Your task to perform on an android device: empty trash in the gmail app Image 0: 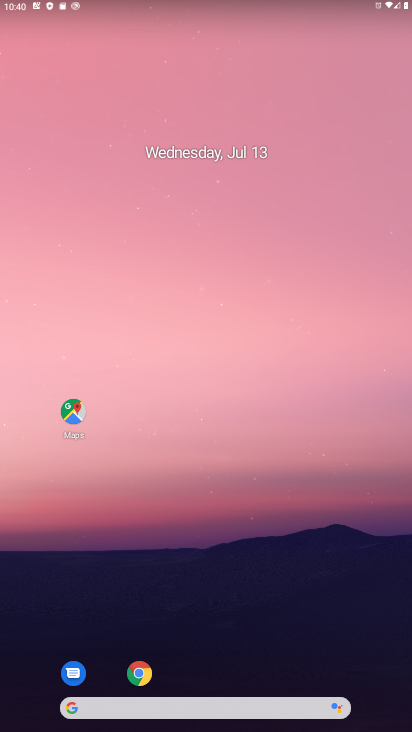
Step 0: drag from (160, 654) to (153, 124)
Your task to perform on an android device: empty trash in the gmail app Image 1: 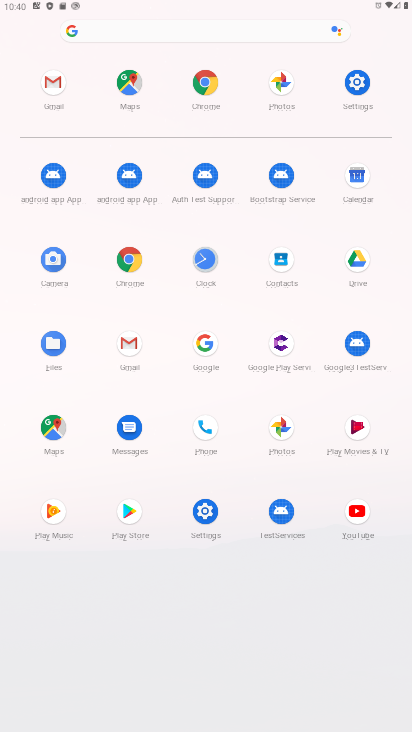
Step 1: click (56, 86)
Your task to perform on an android device: empty trash in the gmail app Image 2: 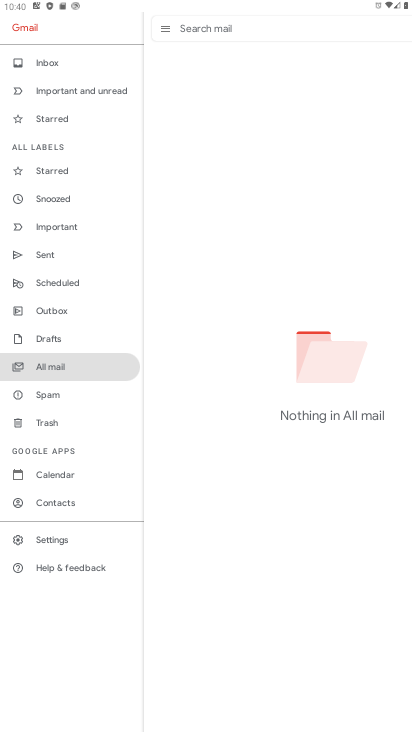
Step 2: click (64, 428)
Your task to perform on an android device: empty trash in the gmail app Image 3: 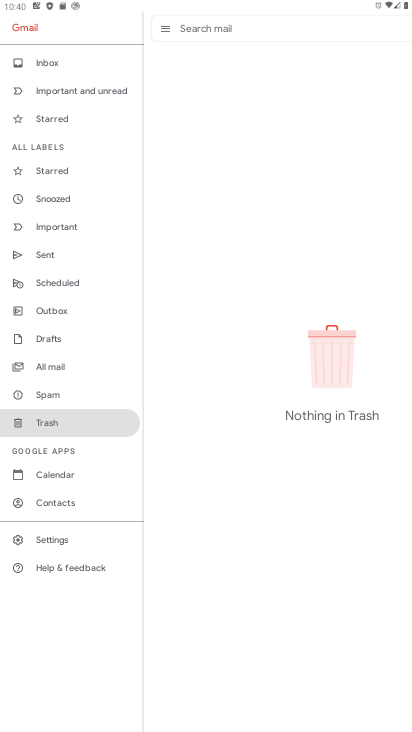
Step 3: task complete